Your task to perform on an android device: check android version Image 0: 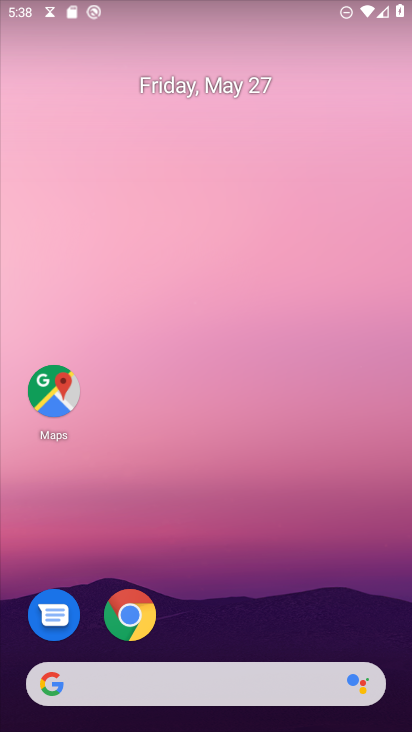
Step 0: drag from (302, 592) to (208, 94)
Your task to perform on an android device: check android version Image 1: 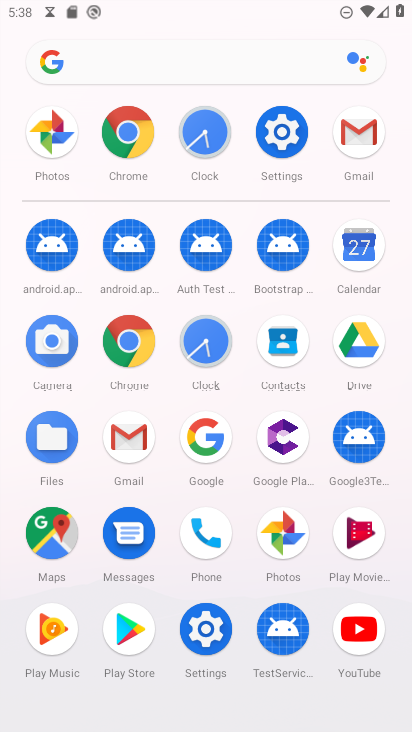
Step 1: click (282, 113)
Your task to perform on an android device: check android version Image 2: 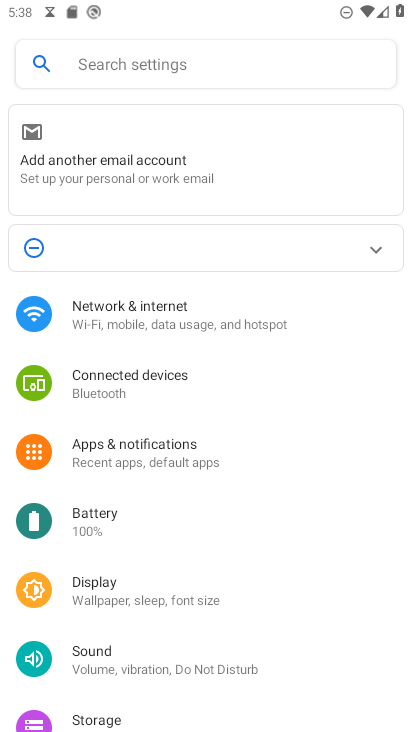
Step 2: drag from (282, 678) to (246, 15)
Your task to perform on an android device: check android version Image 3: 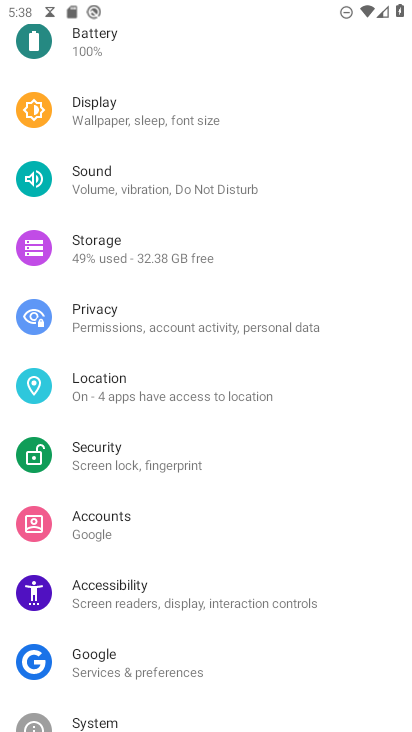
Step 3: drag from (195, 654) to (190, 87)
Your task to perform on an android device: check android version Image 4: 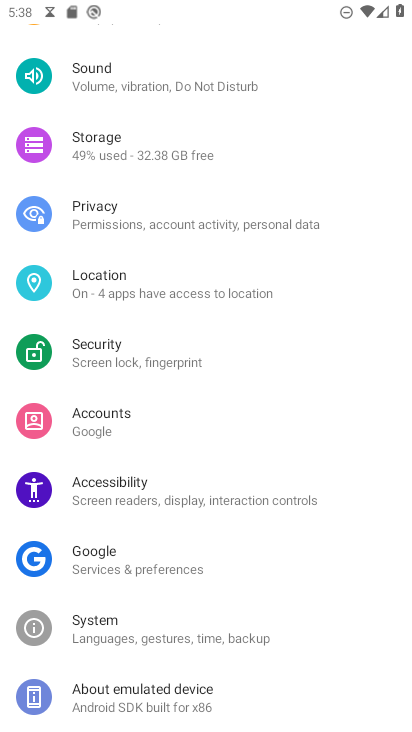
Step 4: click (148, 697)
Your task to perform on an android device: check android version Image 5: 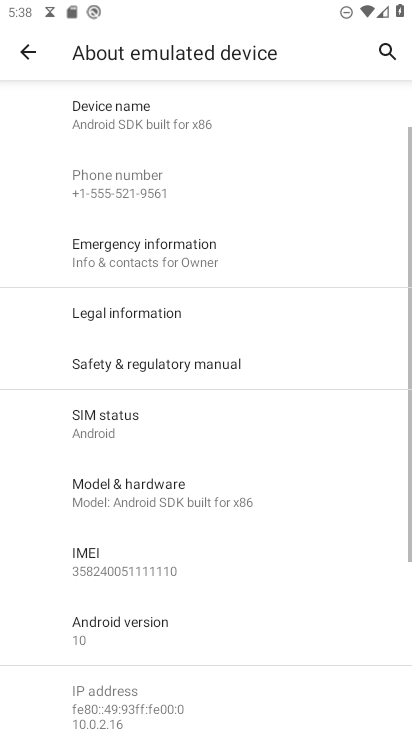
Step 5: drag from (261, 604) to (276, 304)
Your task to perform on an android device: check android version Image 6: 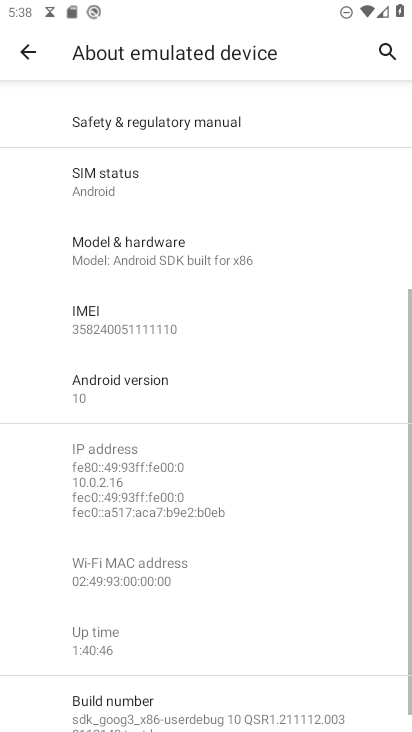
Step 6: click (197, 398)
Your task to perform on an android device: check android version Image 7: 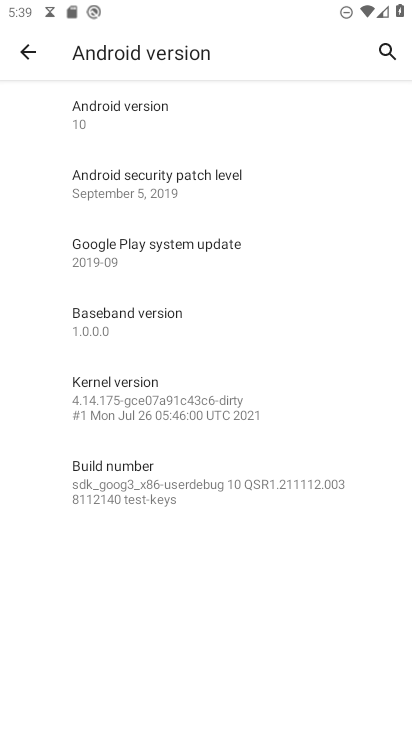
Step 7: task complete